Your task to perform on an android device: install app "Viber Messenger" Image 0: 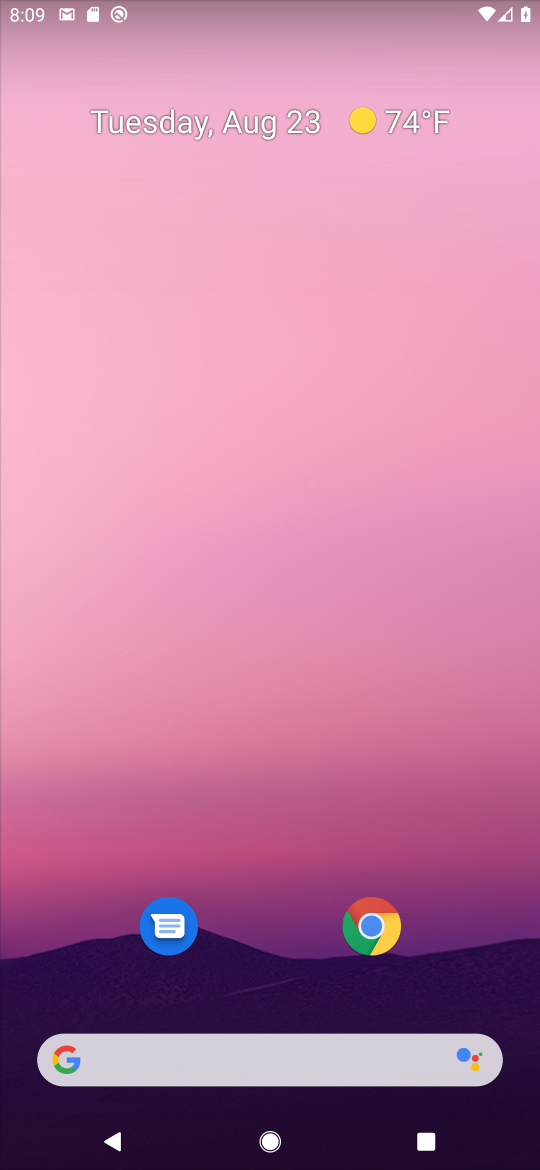
Step 0: drag from (256, 960) to (395, 200)
Your task to perform on an android device: install app "Viber Messenger" Image 1: 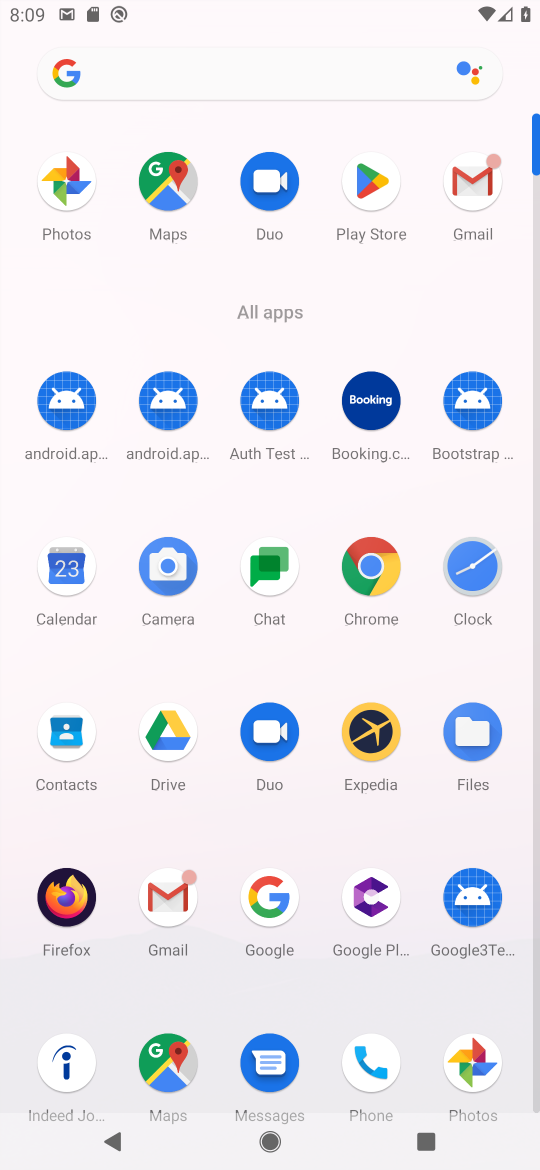
Step 1: click (372, 192)
Your task to perform on an android device: install app "Viber Messenger" Image 2: 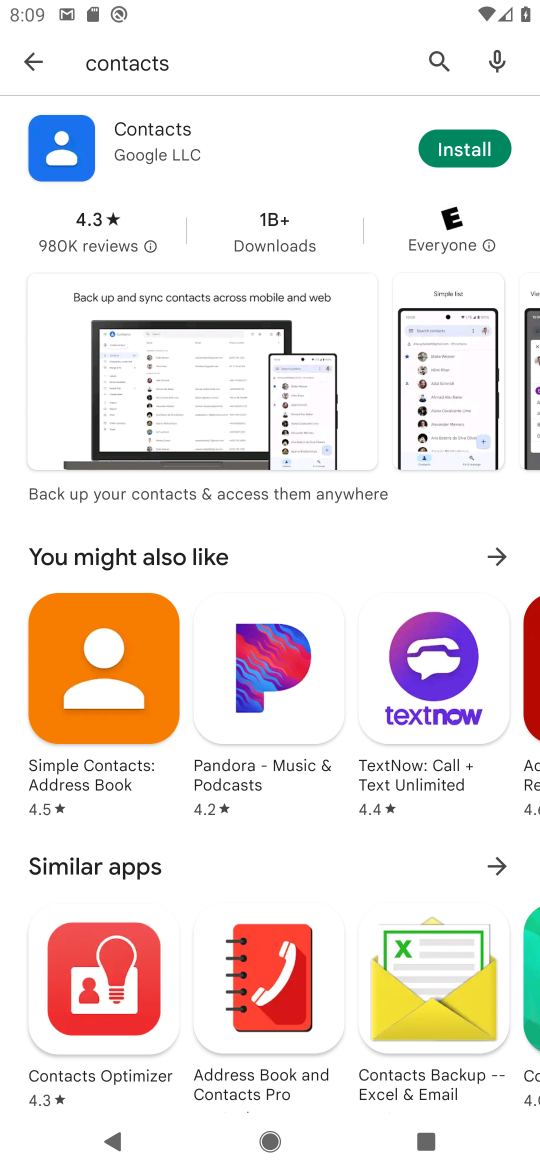
Step 2: click (184, 56)
Your task to perform on an android device: install app "Viber Messenger" Image 3: 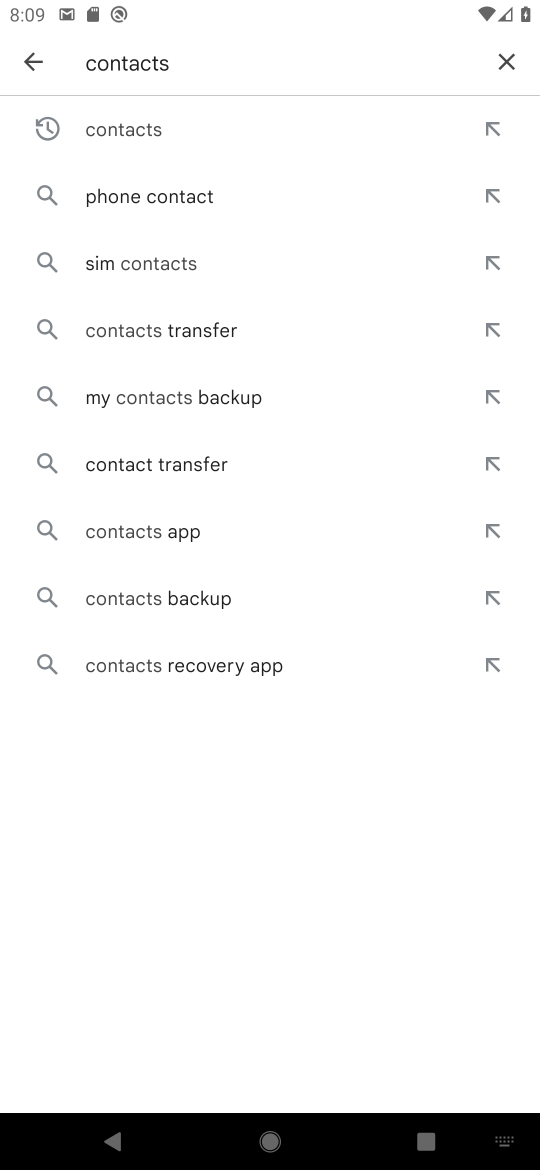
Step 3: click (502, 55)
Your task to perform on an android device: install app "Viber Messenger" Image 4: 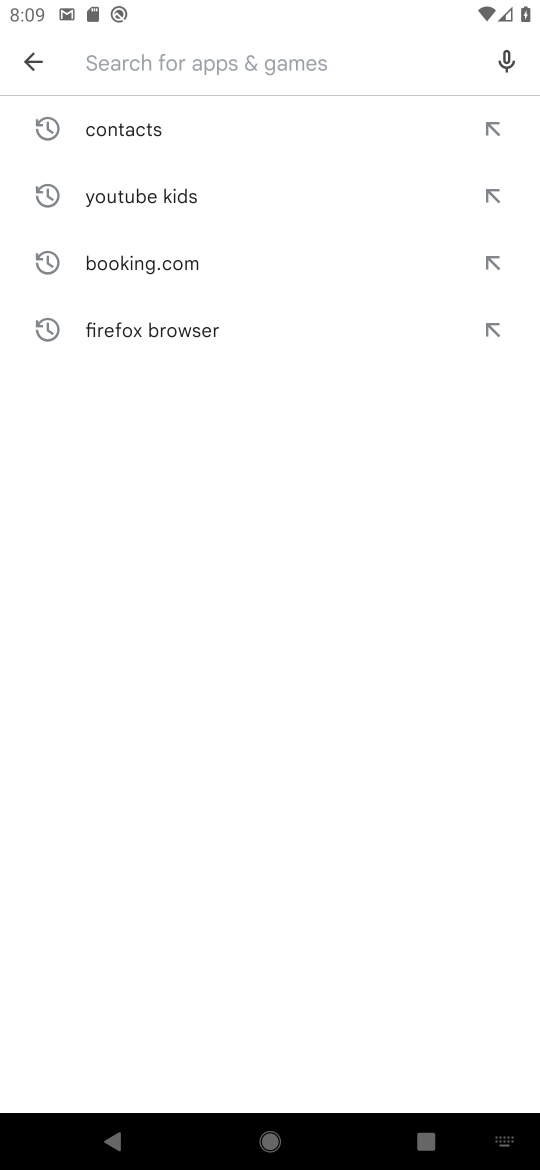
Step 4: type "Viber messenger"
Your task to perform on an android device: install app "Viber Messenger" Image 5: 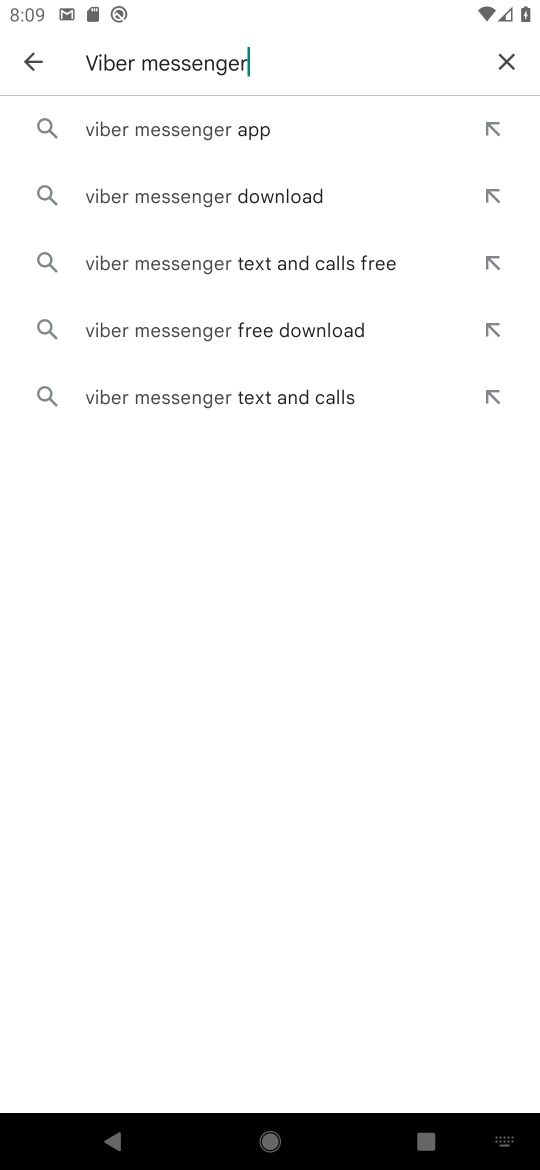
Step 5: click (221, 136)
Your task to perform on an android device: install app "Viber Messenger" Image 6: 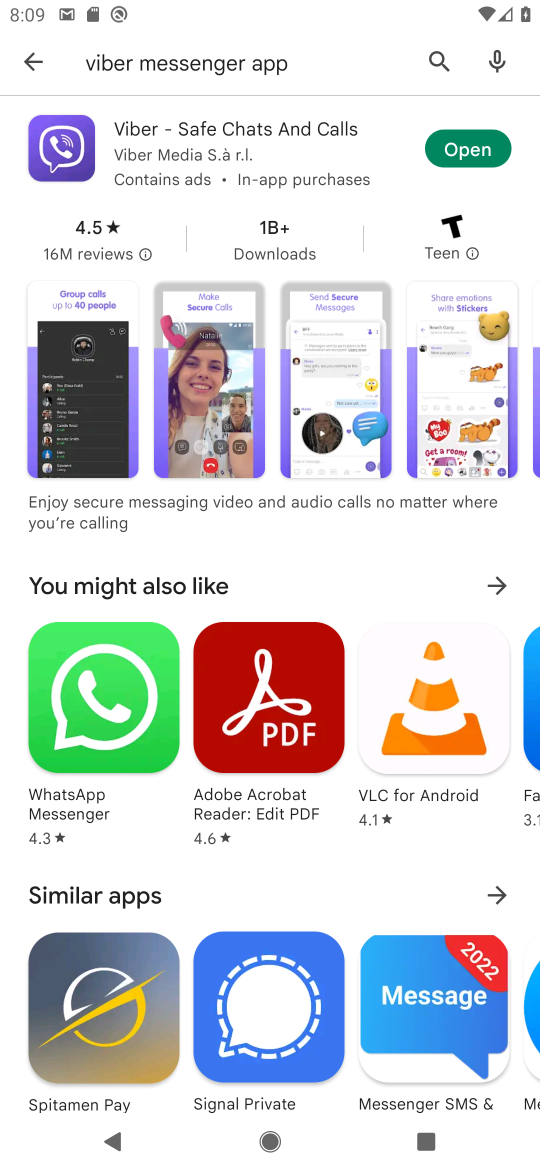
Step 6: task complete